Your task to perform on an android device: Open accessibility settings Image 0: 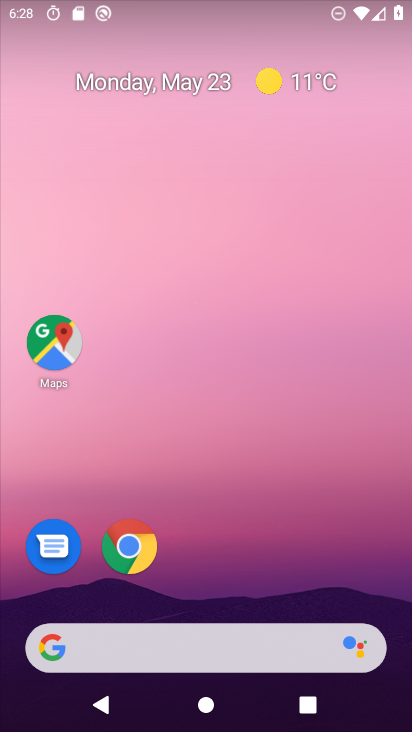
Step 0: drag from (249, 563) to (233, 221)
Your task to perform on an android device: Open accessibility settings Image 1: 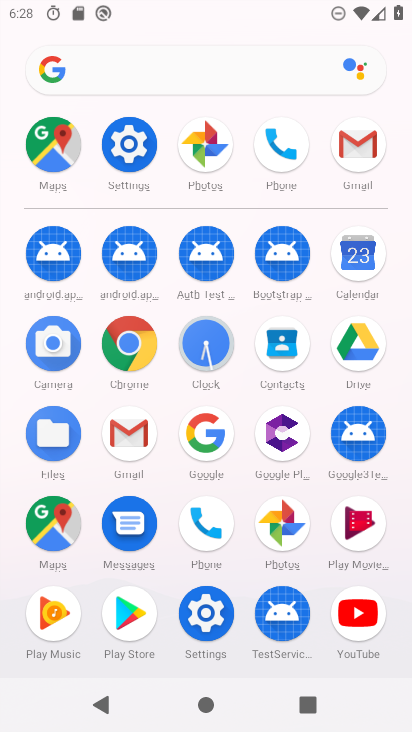
Step 1: click (128, 145)
Your task to perform on an android device: Open accessibility settings Image 2: 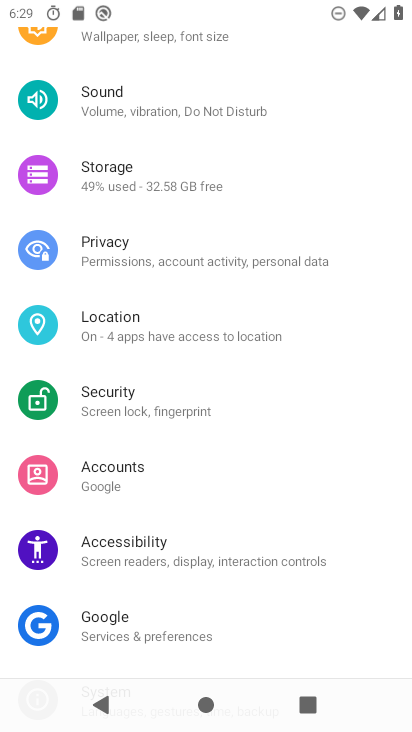
Step 2: click (208, 555)
Your task to perform on an android device: Open accessibility settings Image 3: 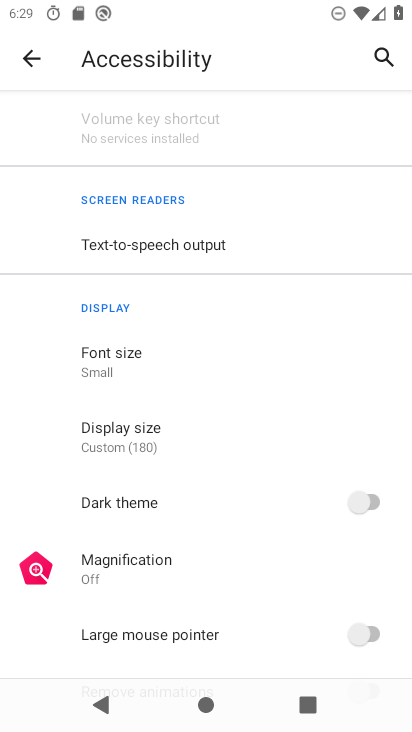
Step 3: task complete